Your task to perform on an android device: Go to sound settings Image 0: 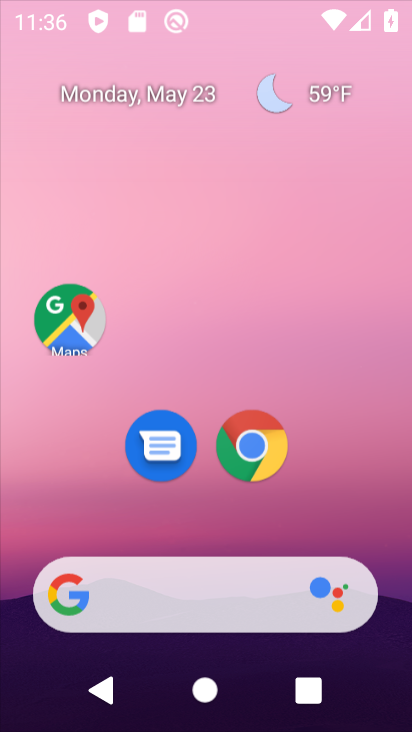
Step 0: drag from (231, 557) to (231, 83)
Your task to perform on an android device: Go to sound settings Image 1: 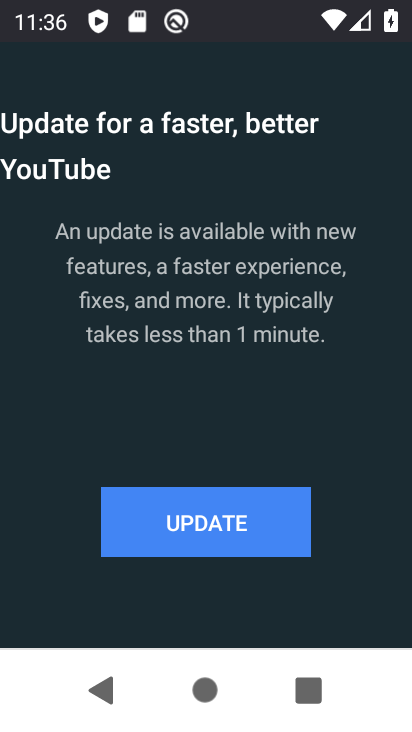
Step 1: press home button
Your task to perform on an android device: Go to sound settings Image 2: 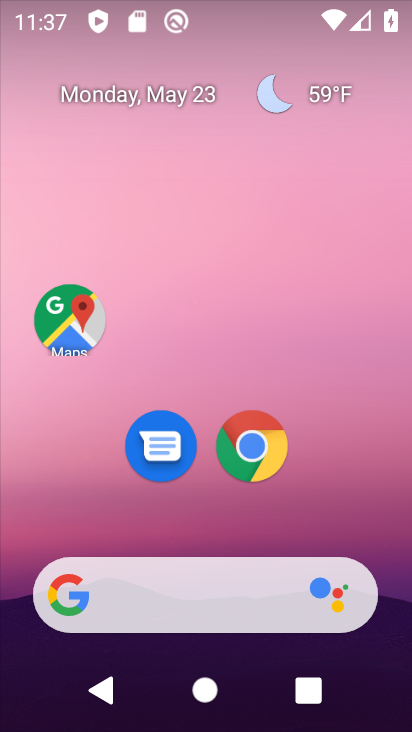
Step 2: drag from (172, 554) to (186, 63)
Your task to perform on an android device: Go to sound settings Image 3: 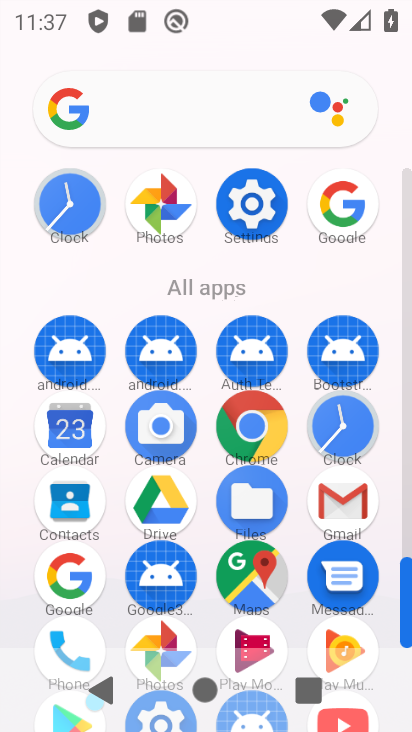
Step 3: click (257, 192)
Your task to perform on an android device: Go to sound settings Image 4: 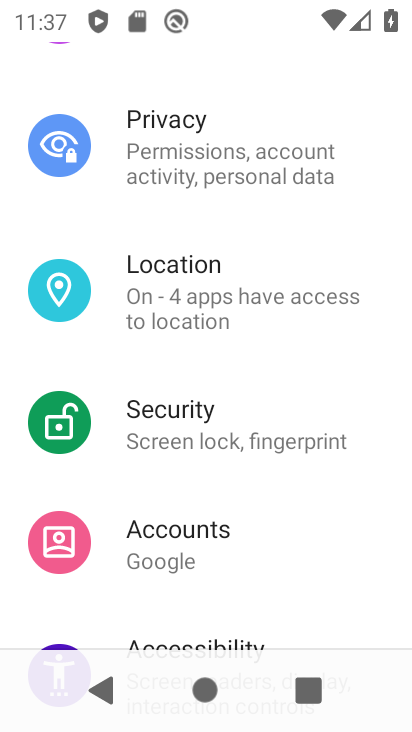
Step 4: drag from (164, 536) to (218, 163)
Your task to perform on an android device: Go to sound settings Image 5: 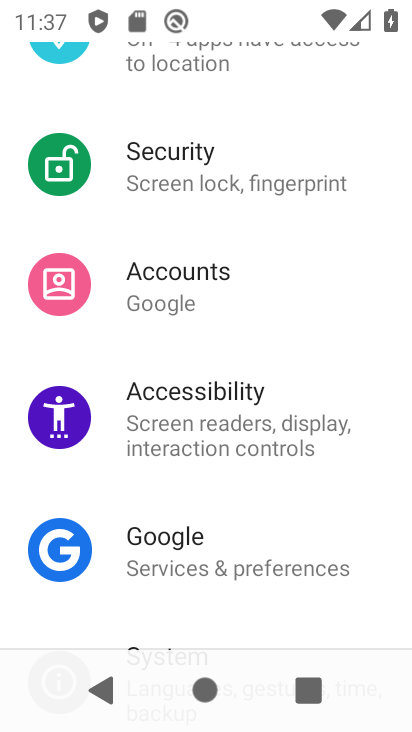
Step 5: drag from (218, 163) to (233, 660)
Your task to perform on an android device: Go to sound settings Image 6: 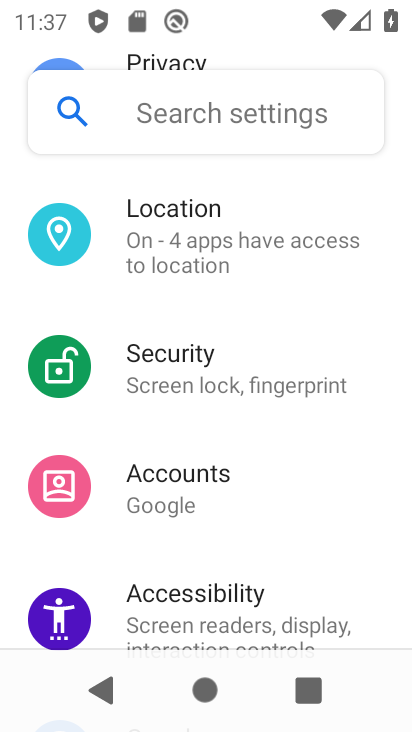
Step 6: drag from (239, 207) to (236, 473)
Your task to perform on an android device: Go to sound settings Image 7: 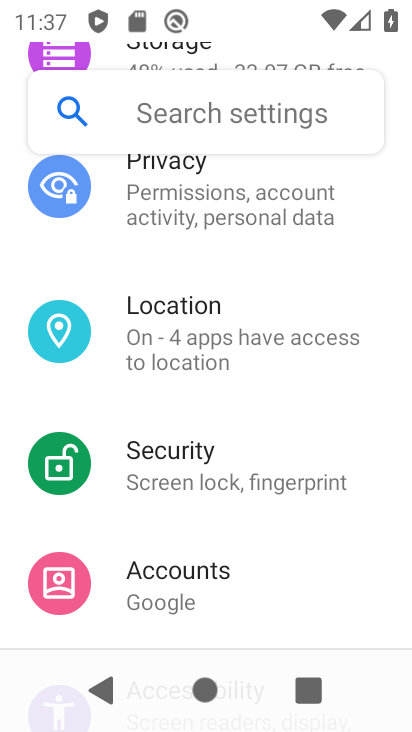
Step 7: drag from (253, 173) to (170, 534)
Your task to perform on an android device: Go to sound settings Image 8: 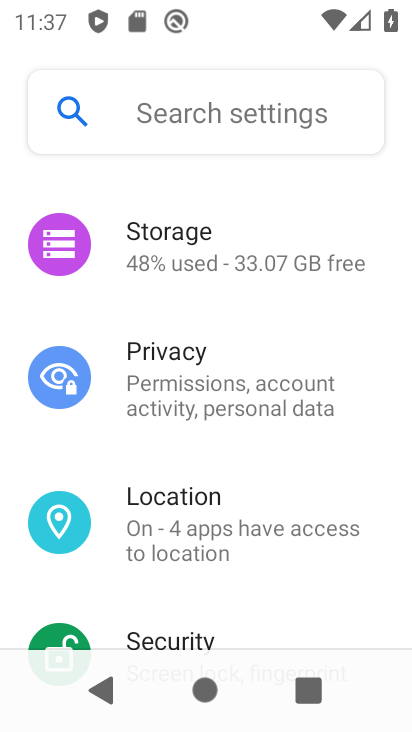
Step 8: drag from (220, 176) to (136, 491)
Your task to perform on an android device: Go to sound settings Image 9: 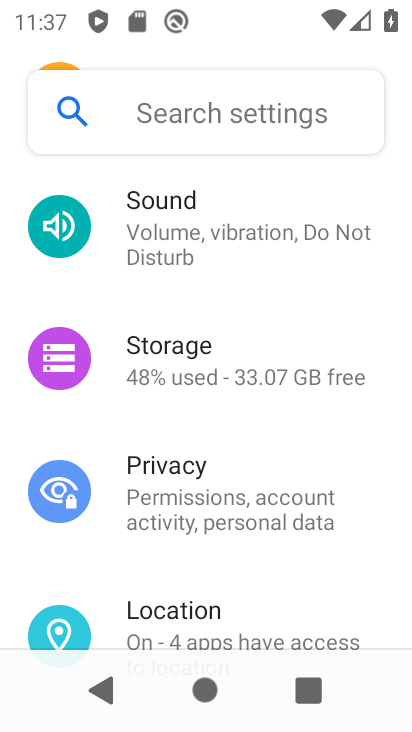
Step 9: click (194, 251)
Your task to perform on an android device: Go to sound settings Image 10: 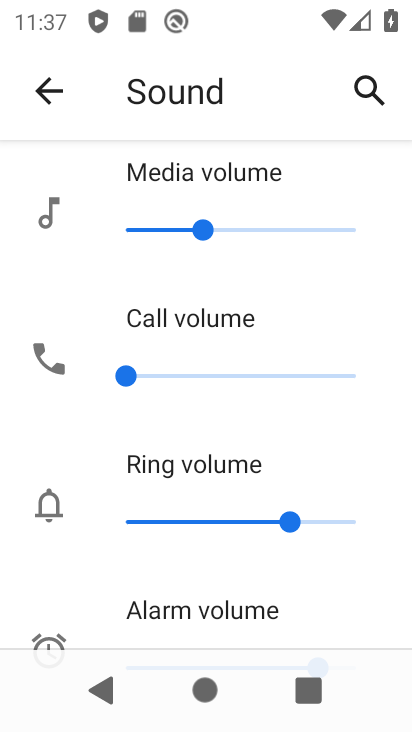
Step 10: task complete